Your task to perform on an android device: toggle data saver in the chrome app Image 0: 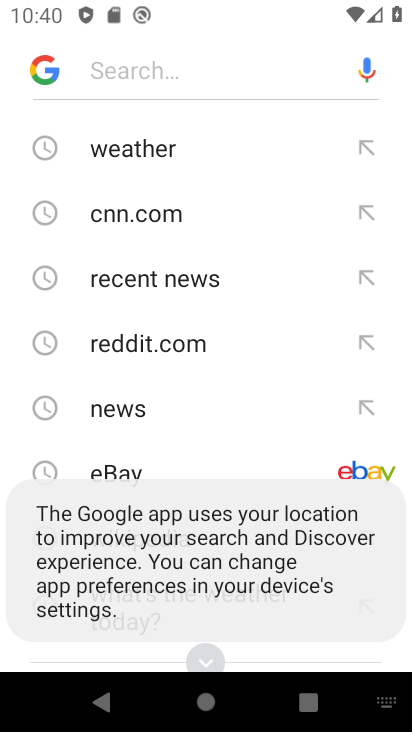
Step 0: press home button
Your task to perform on an android device: toggle data saver in the chrome app Image 1: 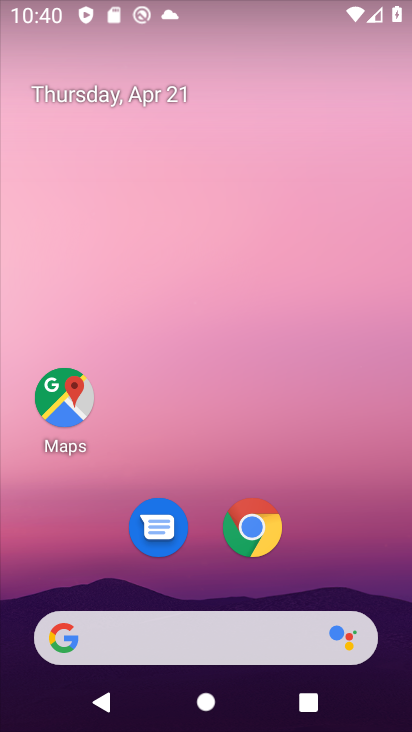
Step 1: drag from (353, 550) to (372, 122)
Your task to perform on an android device: toggle data saver in the chrome app Image 2: 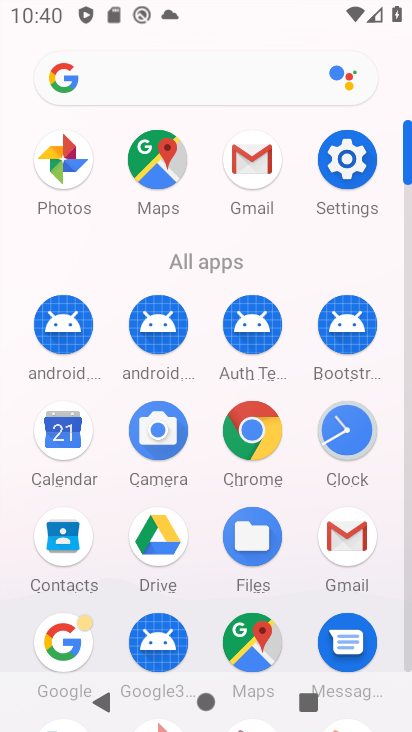
Step 2: click (240, 440)
Your task to perform on an android device: toggle data saver in the chrome app Image 3: 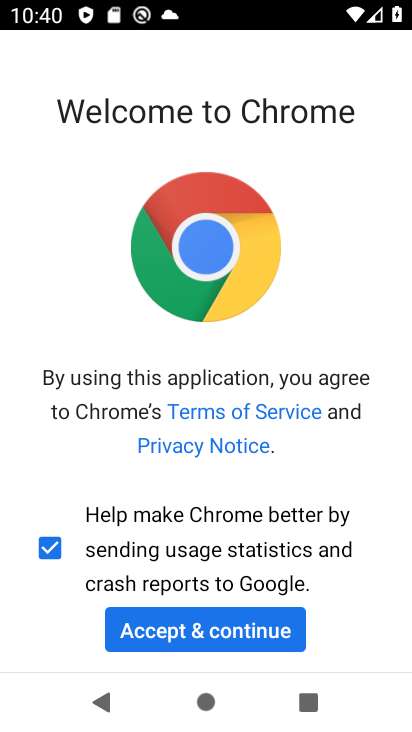
Step 3: click (260, 633)
Your task to perform on an android device: toggle data saver in the chrome app Image 4: 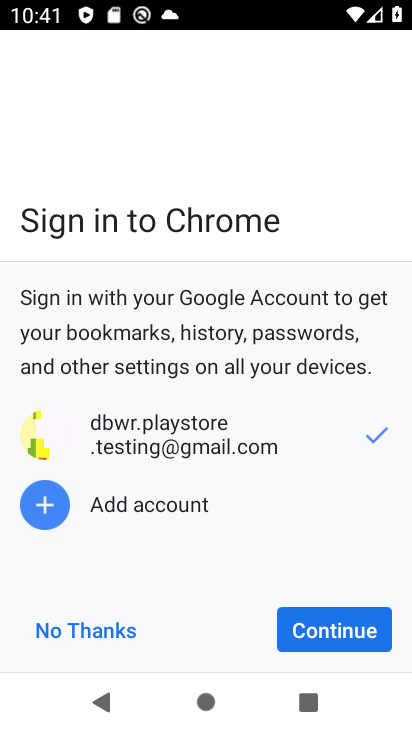
Step 4: click (375, 628)
Your task to perform on an android device: toggle data saver in the chrome app Image 5: 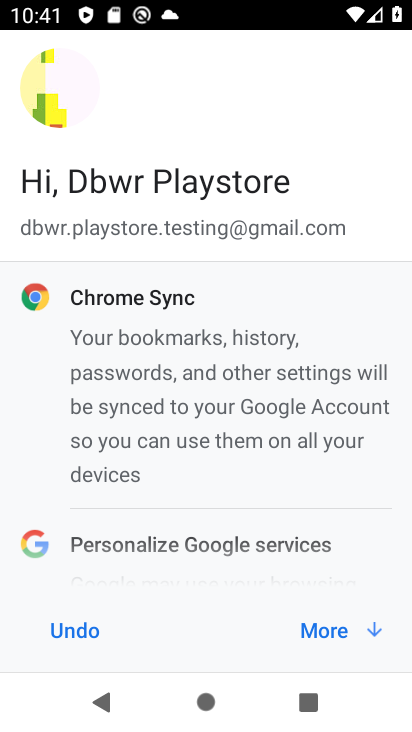
Step 5: click (334, 640)
Your task to perform on an android device: toggle data saver in the chrome app Image 6: 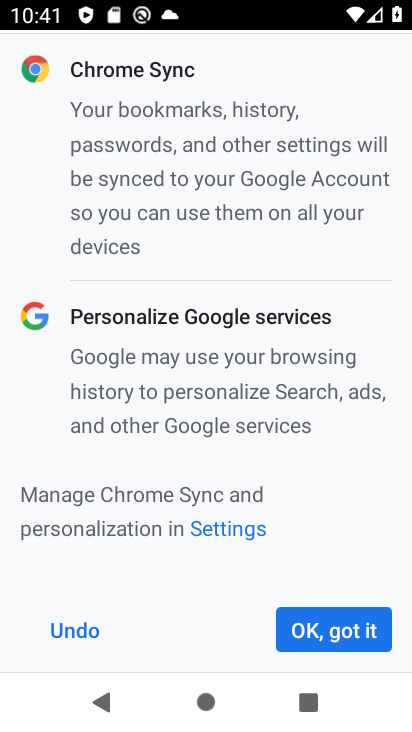
Step 6: click (362, 626)
Your task to perform on an android device: toggle data saver in the chrome app Image 7: 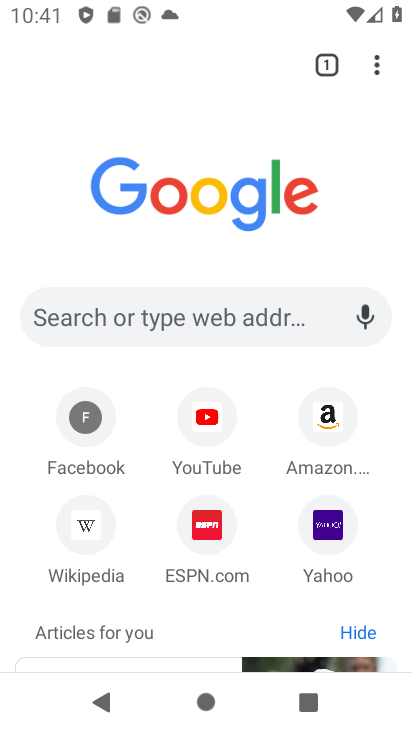
Step 7: click (374, 60)
Your task to perform on an android device: toggle data saver in the chrome app Image 8: 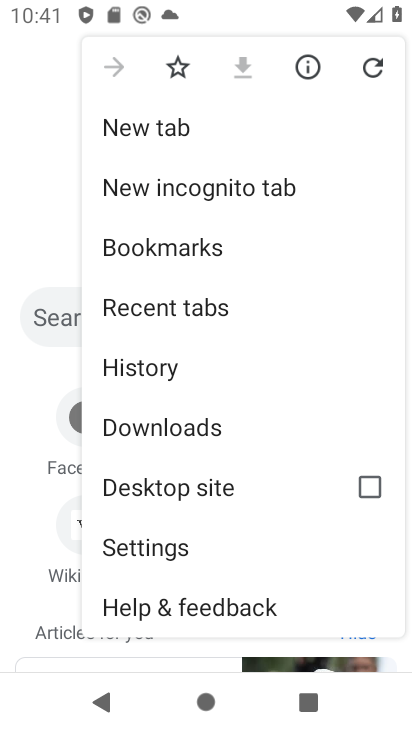
Step 8: click (181, 556)
Your task to perform on an android device: toggle data saver in the chrome app Image 9: 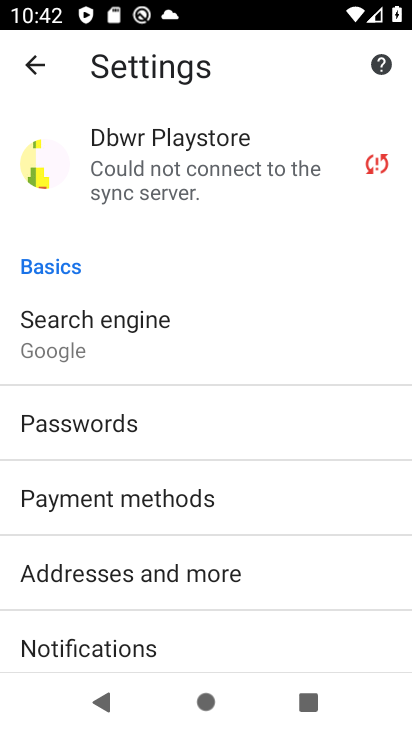
Step 9: drag from (287, 590) to (297, 369)
Your task to perform on an android device: toggle data saver in the chrome app Image 10: 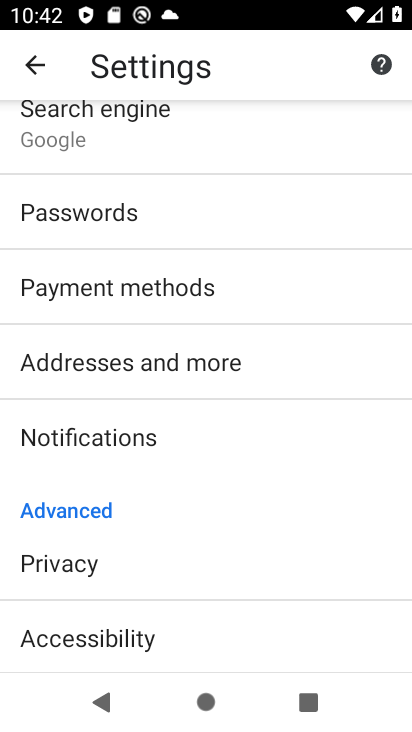
Step 10: drag from (267, 577) to (286, 309)
Your task to perform on an android device: toggle data saver in the chrome app Image 11: 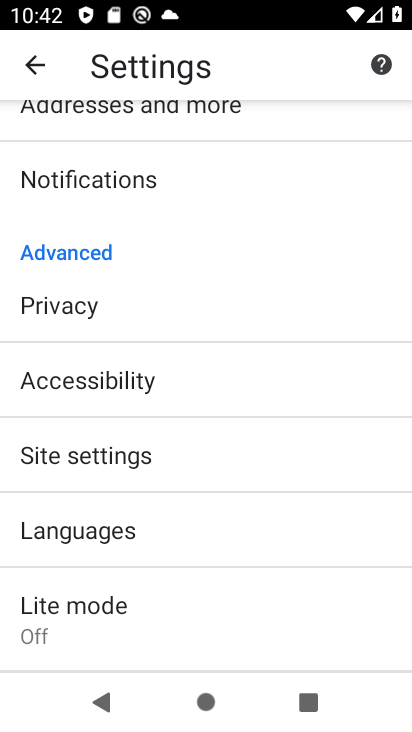
Step 11: click (188, 600)
Your task to perform on an android device: toggle data saver in the chrome app Image 12: 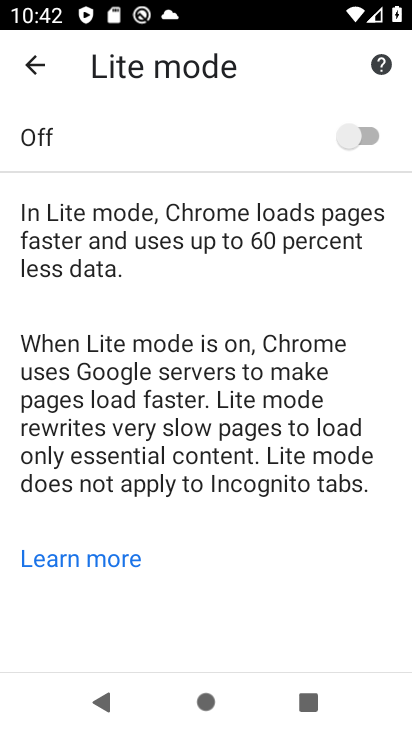
Step 12: click (355, 131)
Your task to perform on an android device: toggle data saver in the chrome app Image 13: 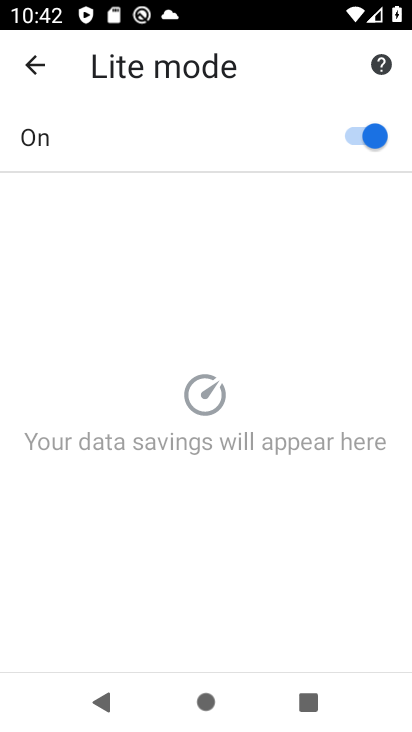
Step 13: task complete